Your task to perform on an android device: show emergency info Image 0: 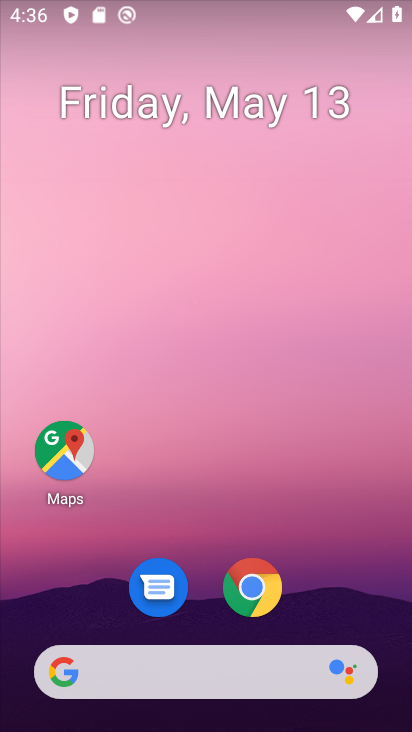
Step 0: drag from (317, 586) to (300, 49)
Your task to perform on an android device: show emergency info Image 1: 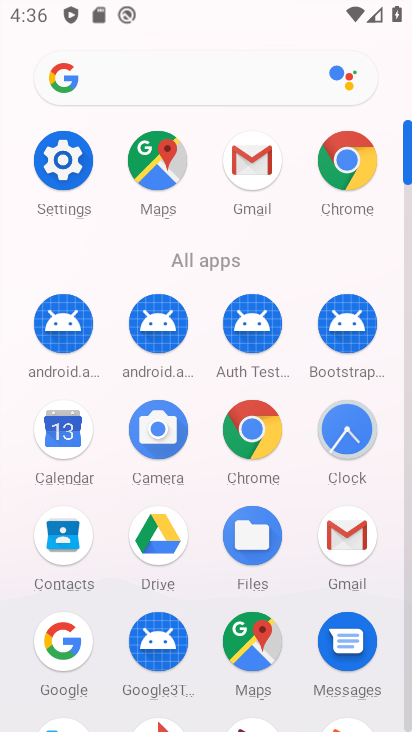
Step 1: click (90, 169)
Your task to perform on an android device: show emergency info Image 2: 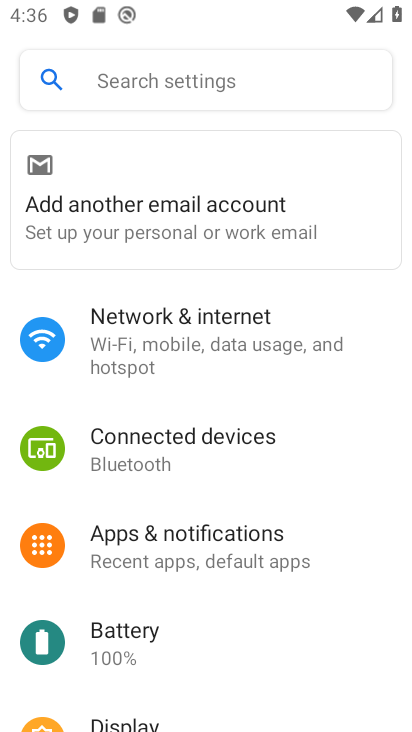
Step 2: drag from (337, 628) to (312, 82)
Your task to perform on an android device: show emergency info Image 3: 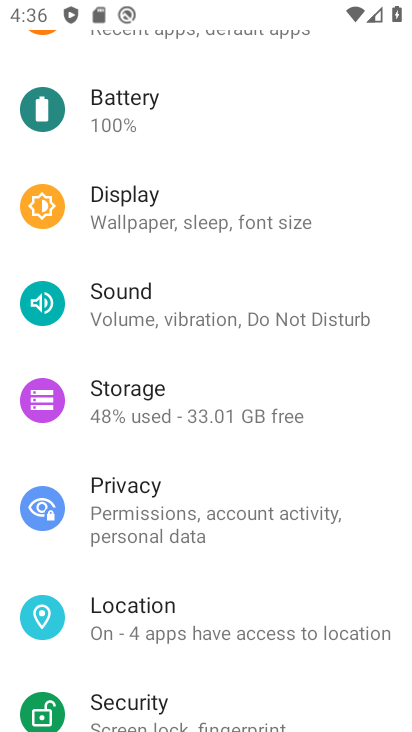
Step 3: drag from (354, 668) to (321, 68)
Your task to perform on an android device: show emergency info Image 4: 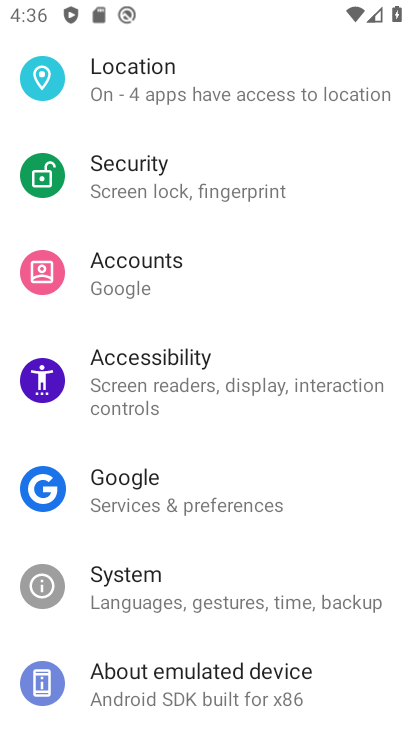
Step 4: click (201, 692)
Your task to perform on an android device: show emergency info Image 5: 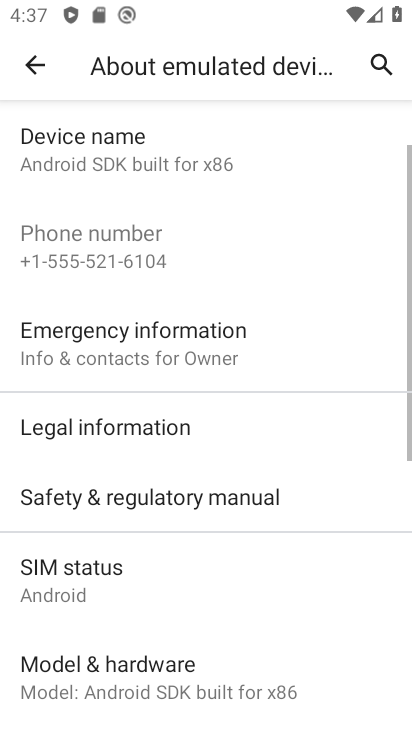
Step 5: click (180, 336)
Your task to perform on an android device: show emergency info Image 6: 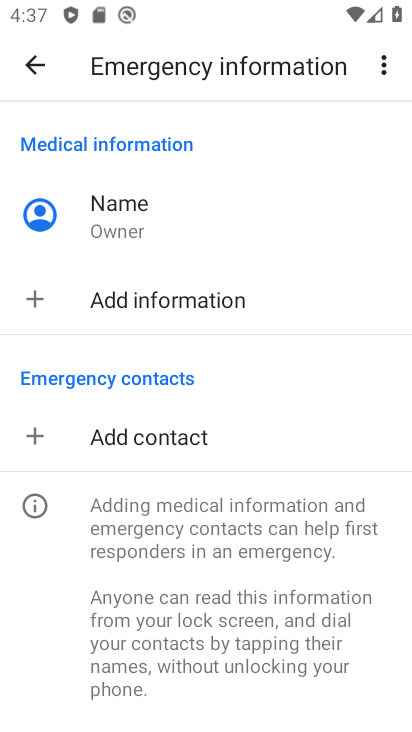
Step 6: task complete